Your task to perform on an android device: Go to Yahoo.com Image 0: 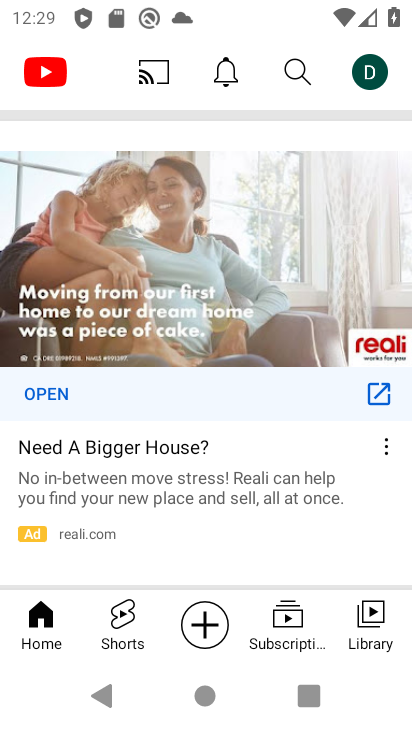
Step 0: press home button
Your task to perform on an android device: Go to Yahoo.com Image 1: 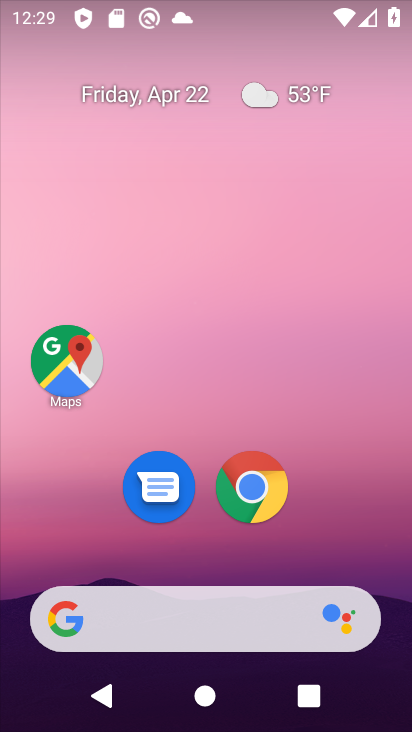
Step 1: click (245, 490)
Your task to perform on an android device: Go to Yahoo.com Image 2: 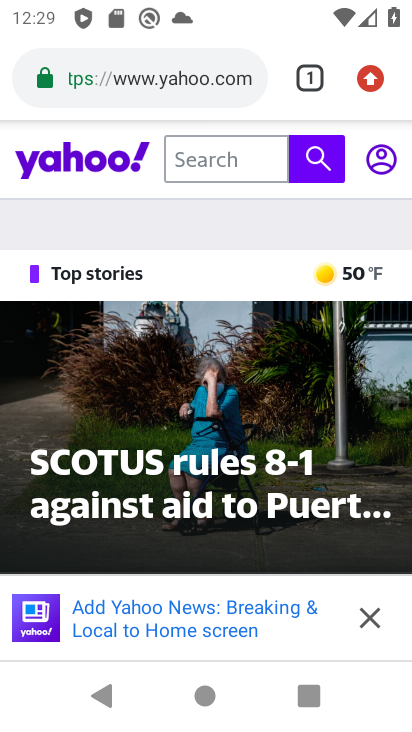
Step 2: task complete